Your task to perform on an android device: Open Chrome and go to the settings page Image 0: 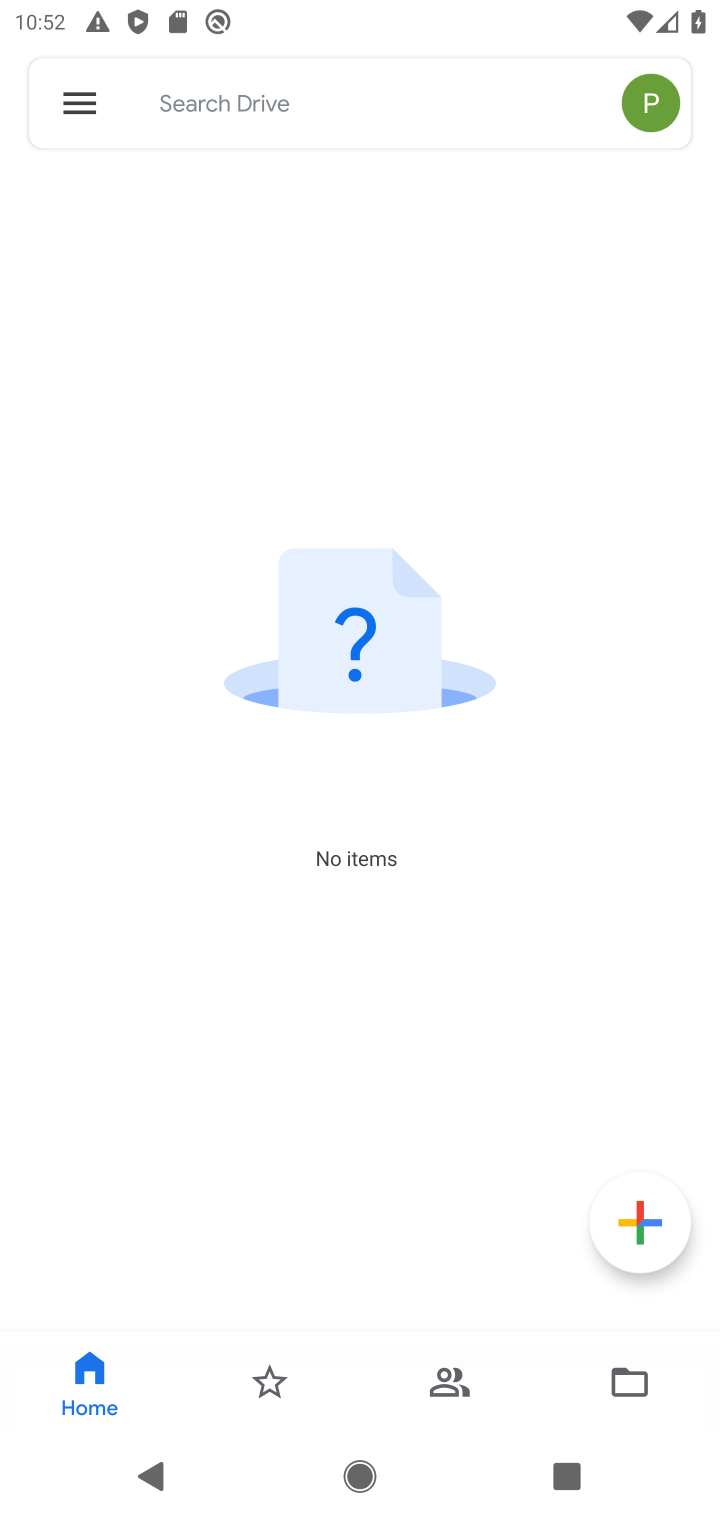
Step 0: press home button
Your task to perform on an android device: Open Chrome and go to the settings page Image 1: 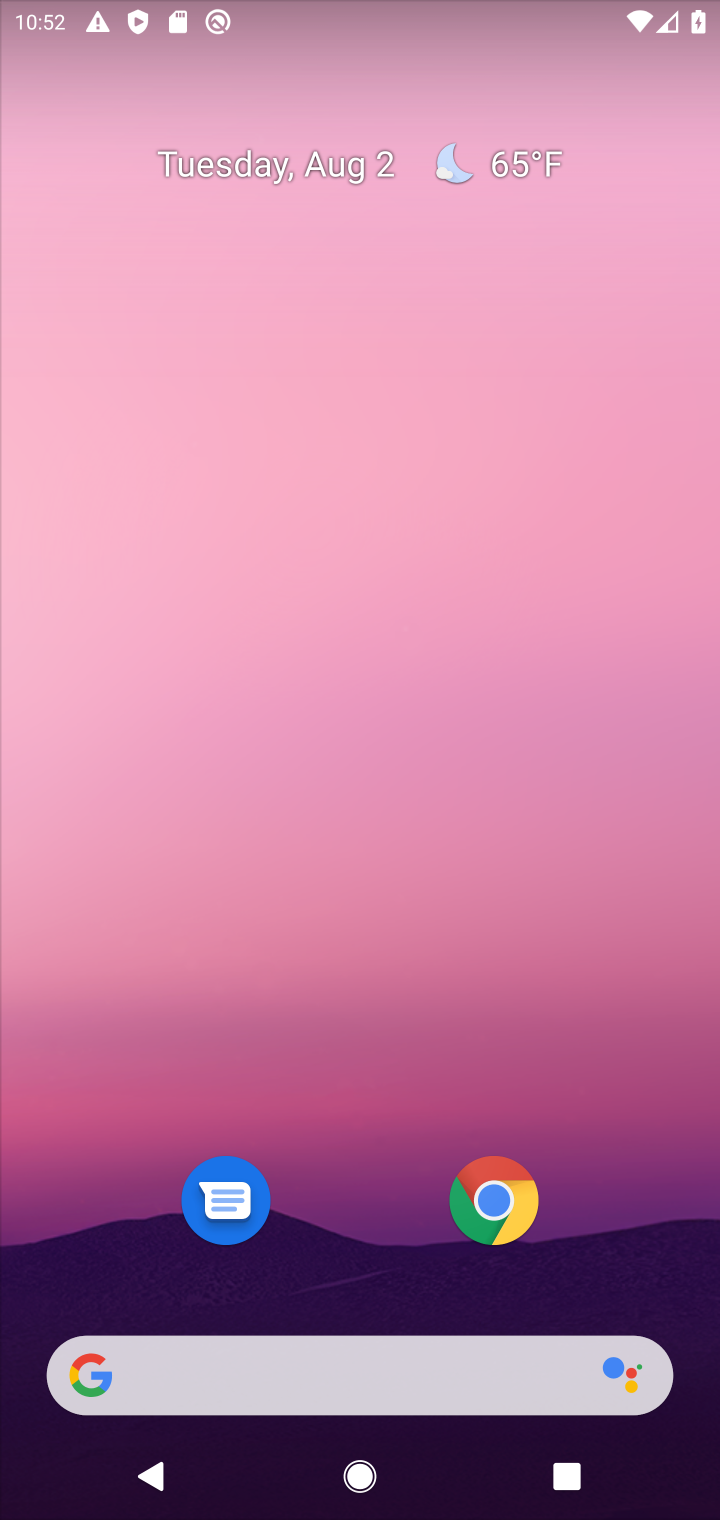
Step 1: click (495, 1209)
Your task to perform on an android device: Open Chrome and go to the settings page Image 2: 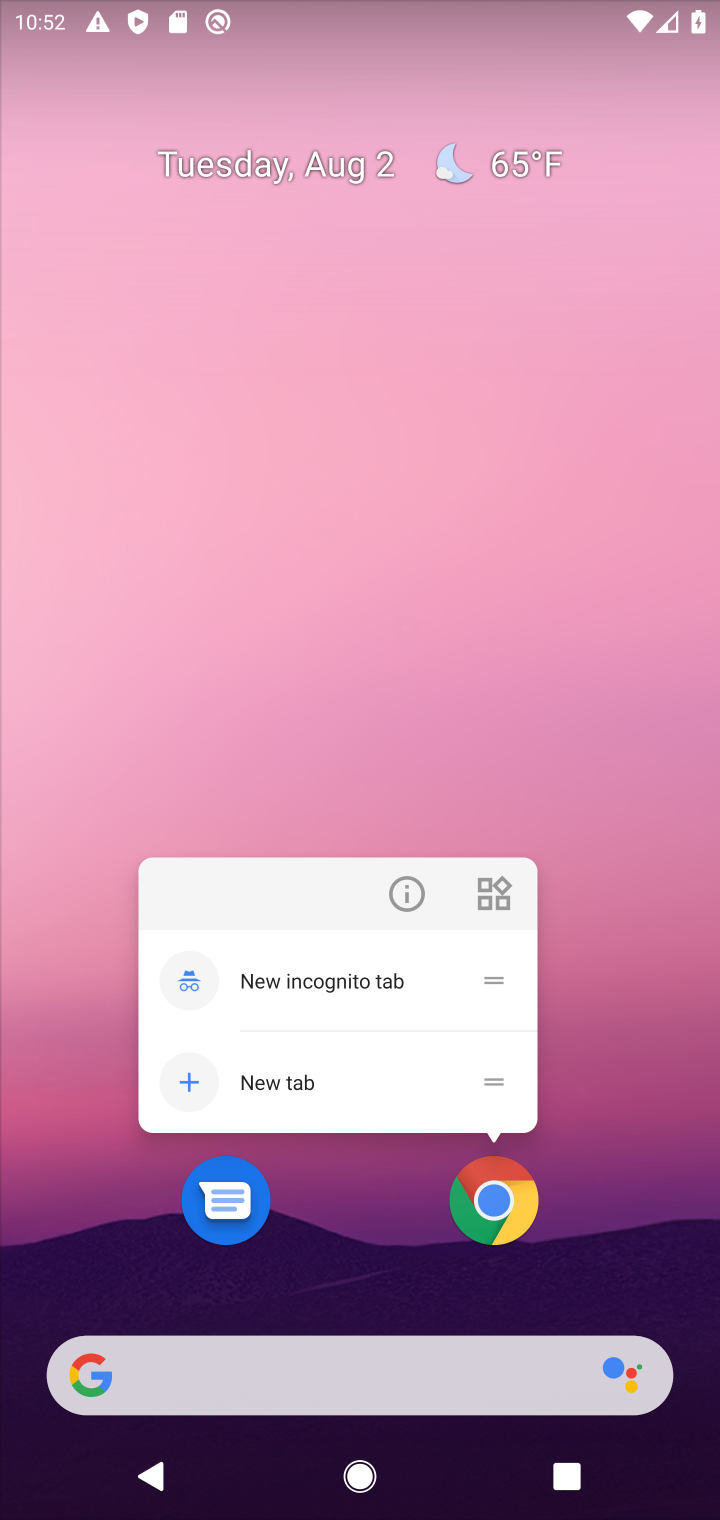
Step 2: click (504, 1206)
Your task to perform on an android device: Open Chrome and go to the settings page Image 3: 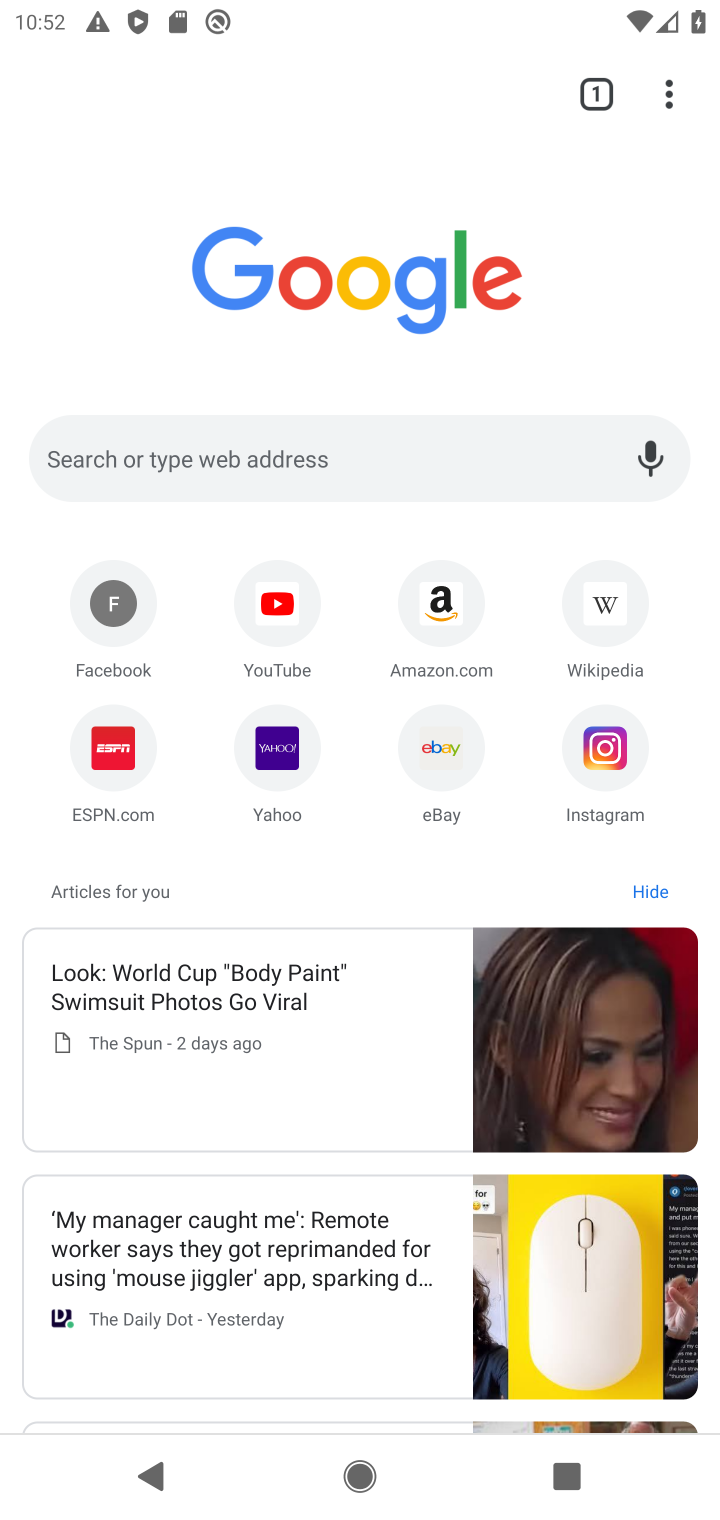
Step 3: click (668, 107)
Your task to perform on an android device: Open Chrome and go to the settings page Image 4: 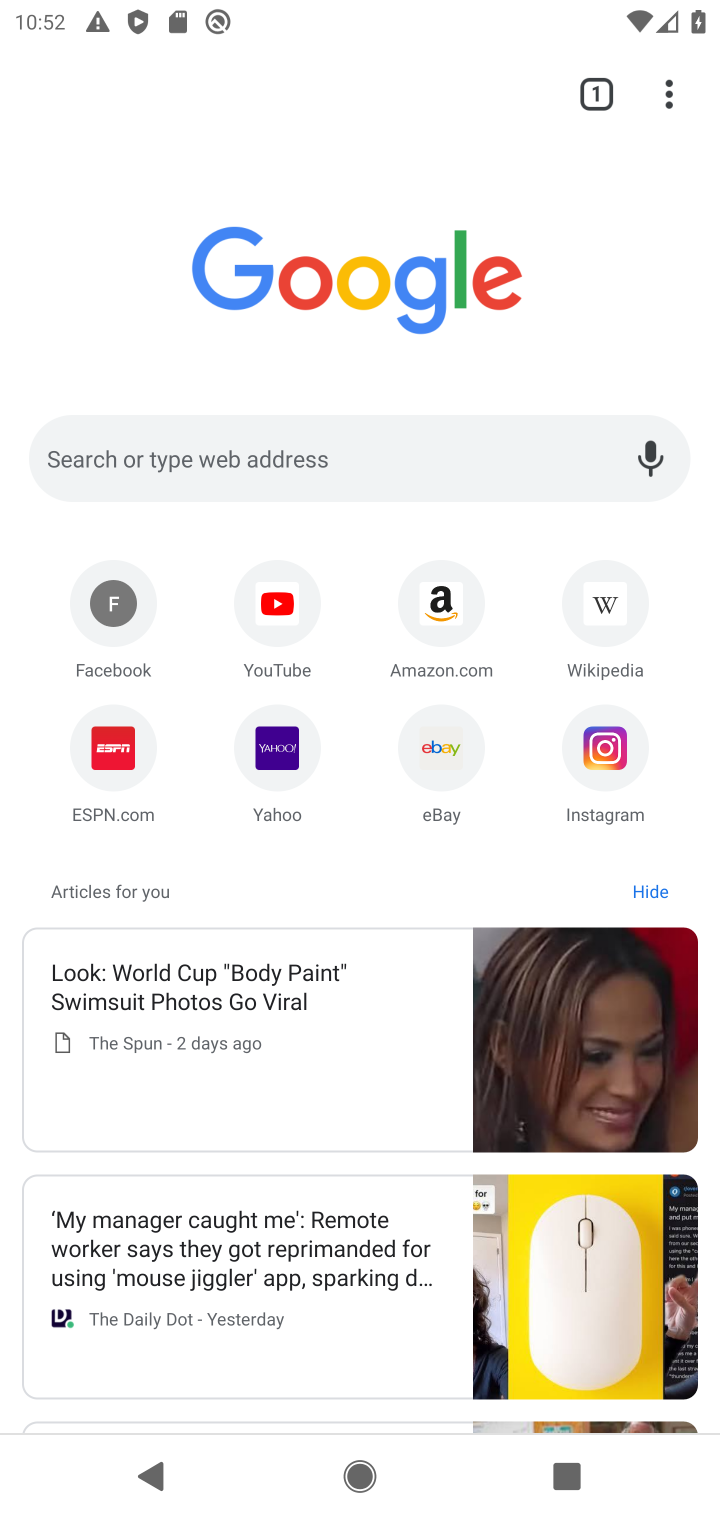
Step 4: click (668, 110)
Your task to perform on an android device: Open Chrome and go to the settings page Image 5: 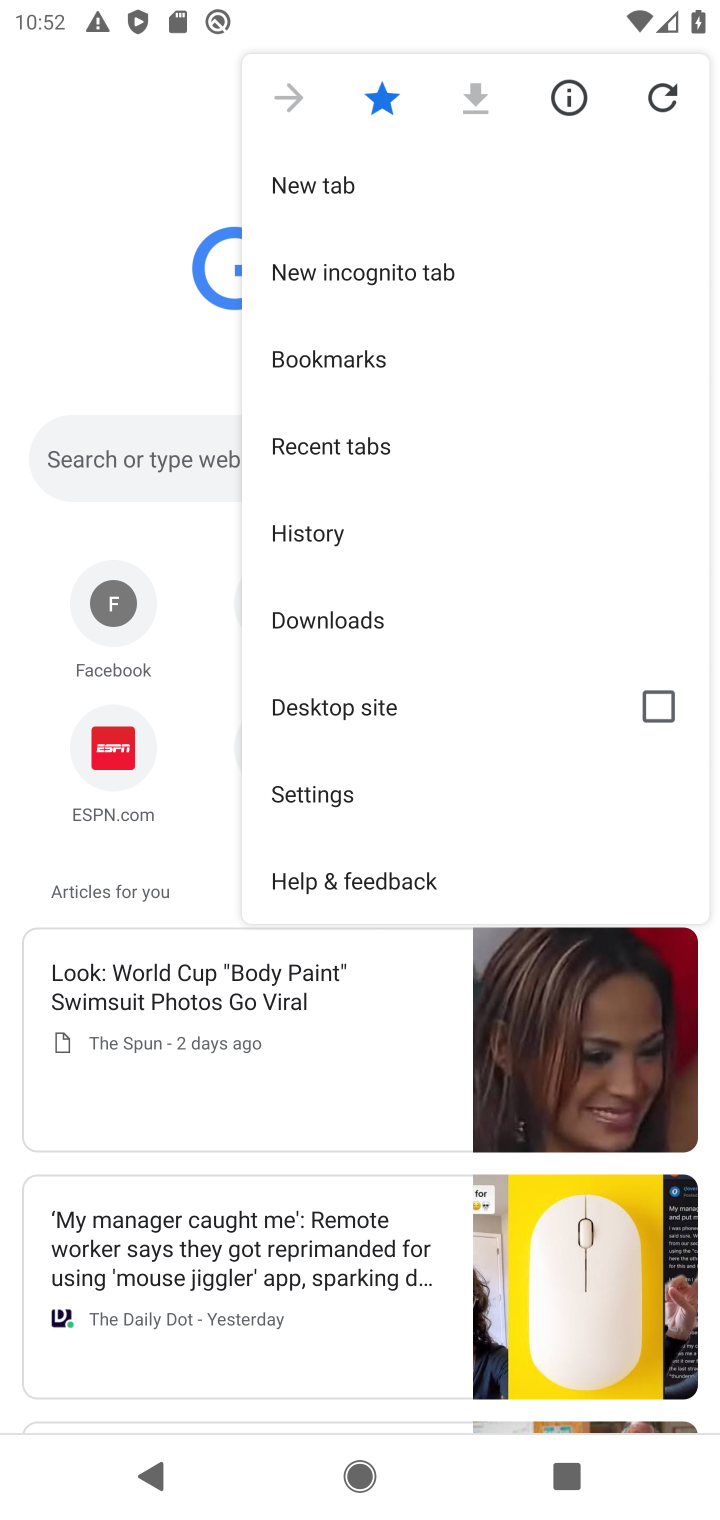
Step 5: click (322, 786)
Your task to perform on an android device: Open Chrome and go to the settings page Image 6: 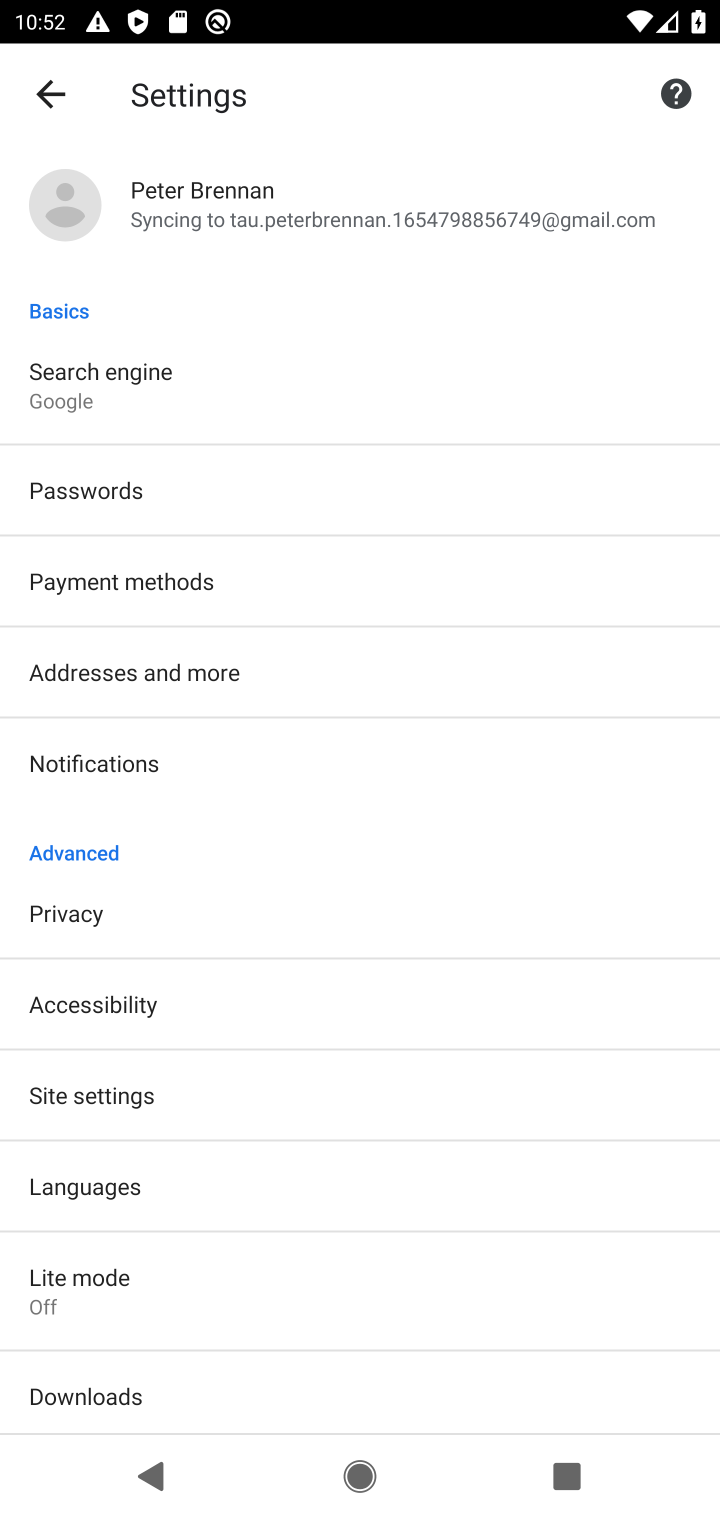
Step 6: task complete